Your task to perform on an android device: What's the weather going to be tomorrow? Image 0: 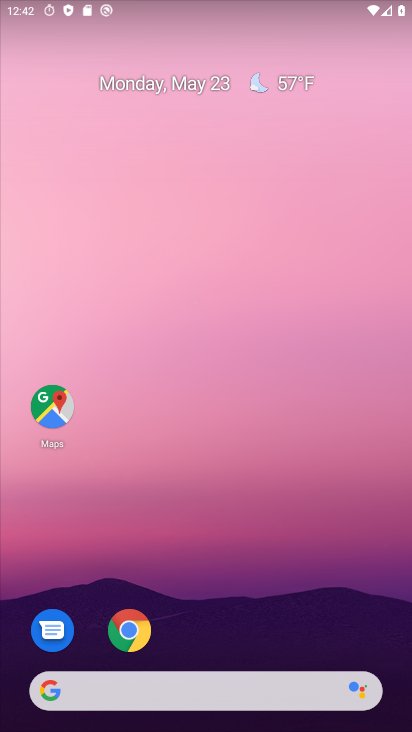
Step 0: drag from (250, 515) to (211, 13)
Your task to perform on an android device: What's the weather going to be tomorrow? Image 1: 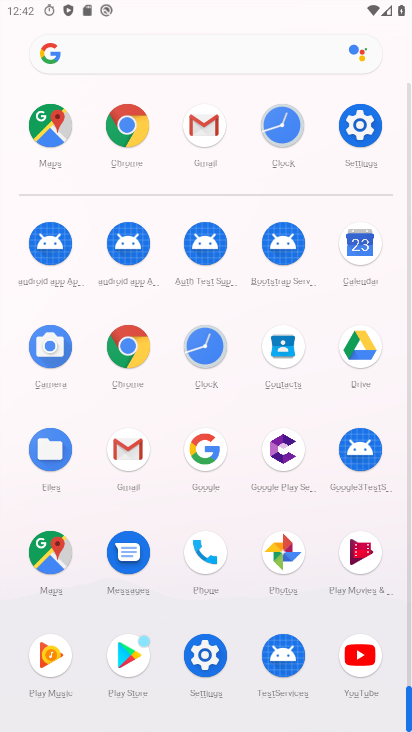
Step 1: drag from (13, 562) to (40, 193)
Your task to perform on an android device: What's the weather going to be tomorrow? Image 2: 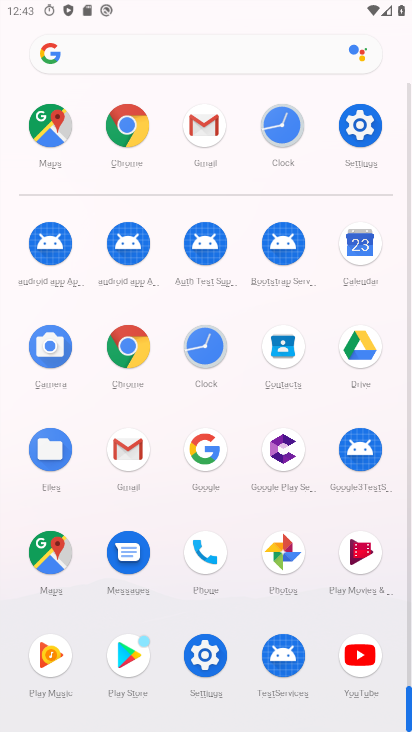
Step 2: click (119, 121)
Your task to perform on an android device: What's the weather going to be tomorrow? Image 3: 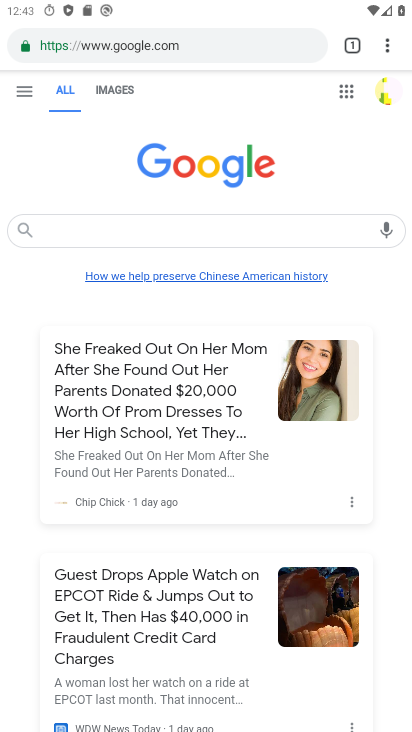
Step 3: click (174, 40)
Your task to perform on an android device: What's the weather going to be tomorrow? Image 4: 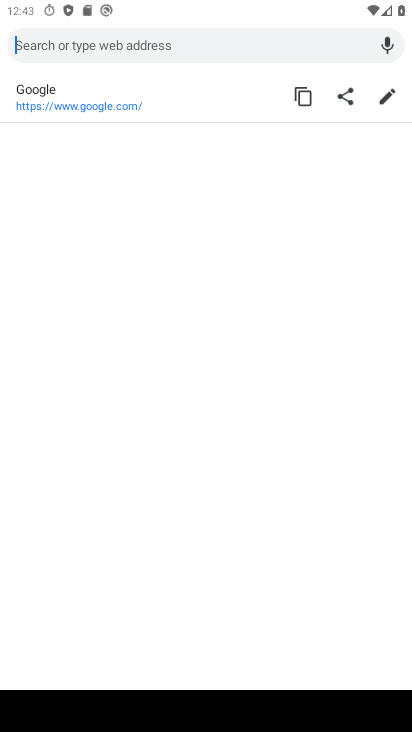
Step 4: type "What's the weather going to be tomorrow?"
Your task to perform on an android device: What's the weather going to be tomorrow? Image 5: 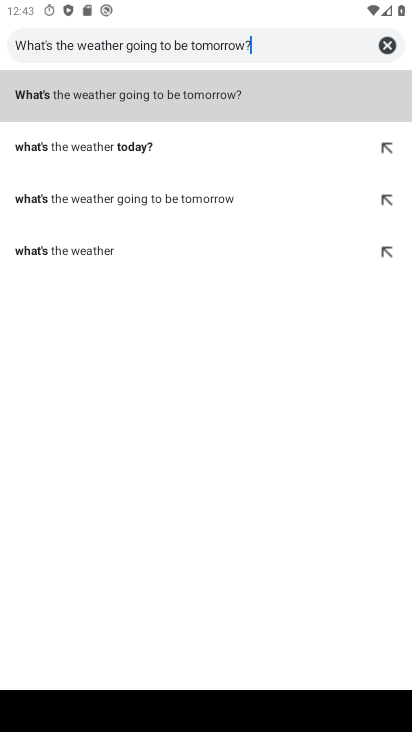
Step 5: type ""
Your task to perform on an android device: What's the weather going to be tomorrow? Image 6: 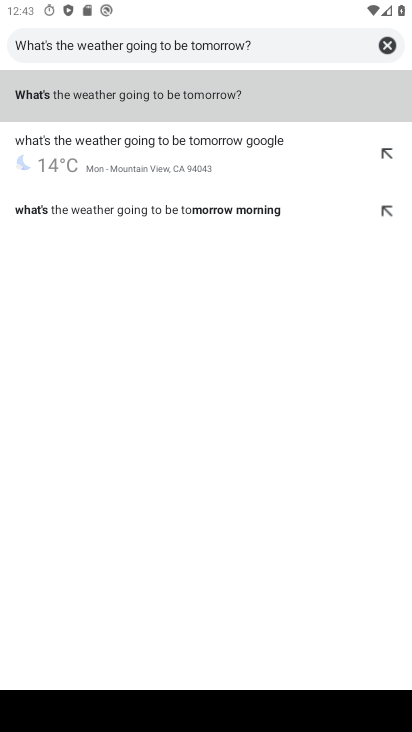
Step 6: click (112, 146)
Your task to perform on an android device: What's the weather going to be tomorrow? Image 7: 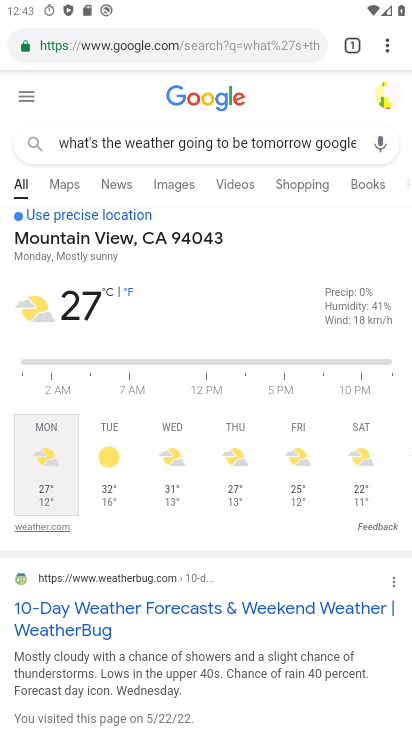
Step 7: task complete